Your task to perform on an android device: find photos in the google photos app Image 0: 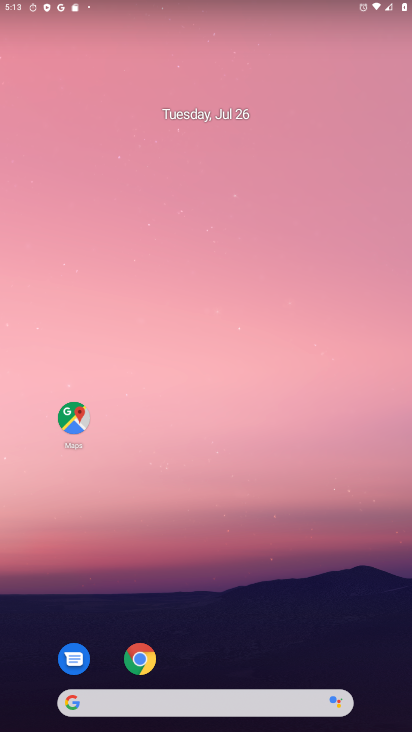
Step 0: press home button
Your task to perform on an android device: find photos in the google photos app Image 1: 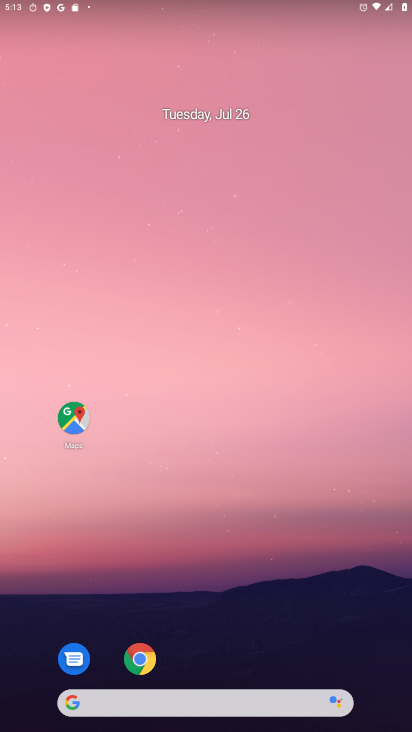
Step 1: drag from (212, 674) to (275, 82)
Your task to perform on an android device: find photos in the google photos app Image 2: 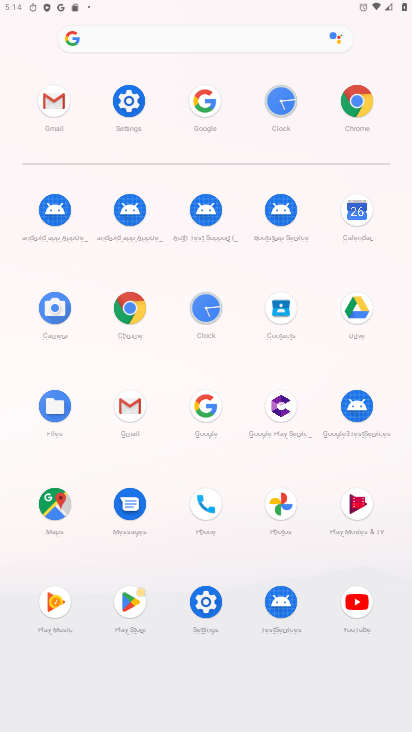
Step 2: click (290, 490)
Your task to perform on an android device: find photos in the google photos app Image 3: 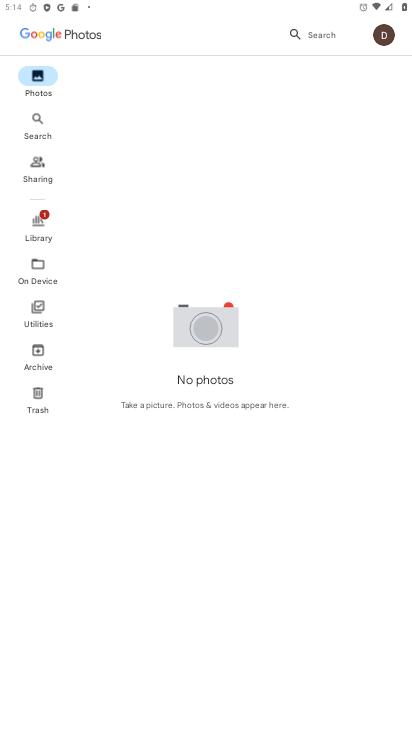
Step 3: task complete